Your task to perform on an android device: change the clock style Image 0: 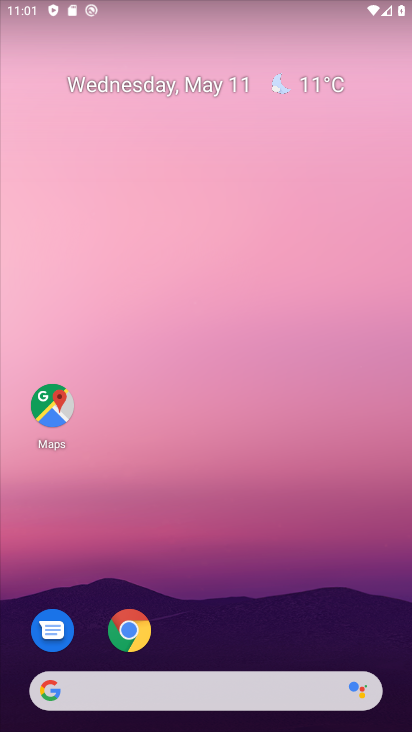
Step 0: drag from (199, 640) to (260, 239)
Your task to perform on an android device: change the clock style Image 1: 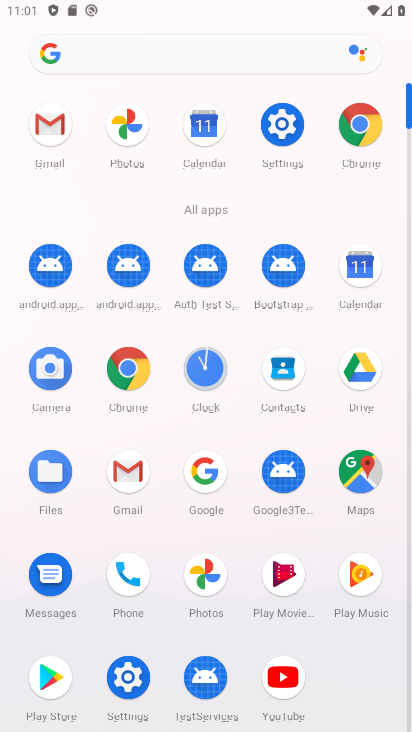
Step 1: click (208, 372)
Your task to perform on an android device: change the clock style Image 2: 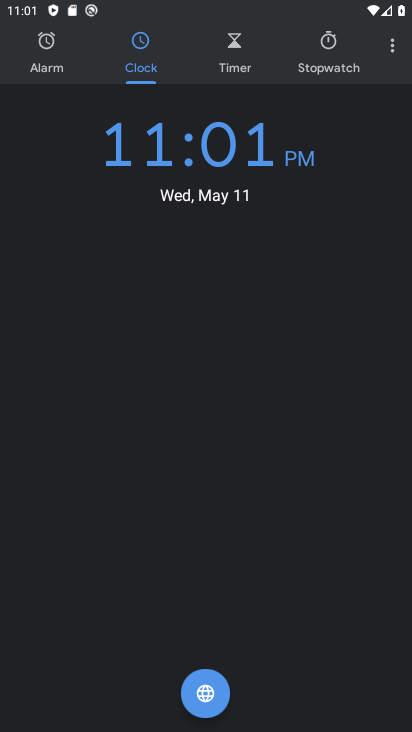
Step 2: click (396, 46)
Your task to perform on an android device: change the clock style Image 3: 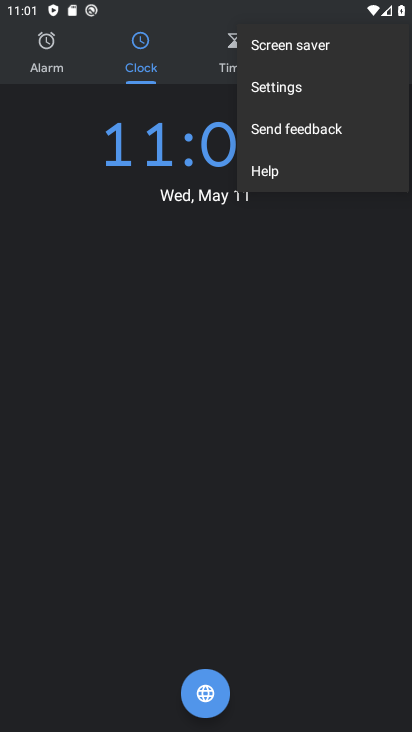
Step 3: click (293, 89)
Your task to perform on an android device: change the clock style Image 4: 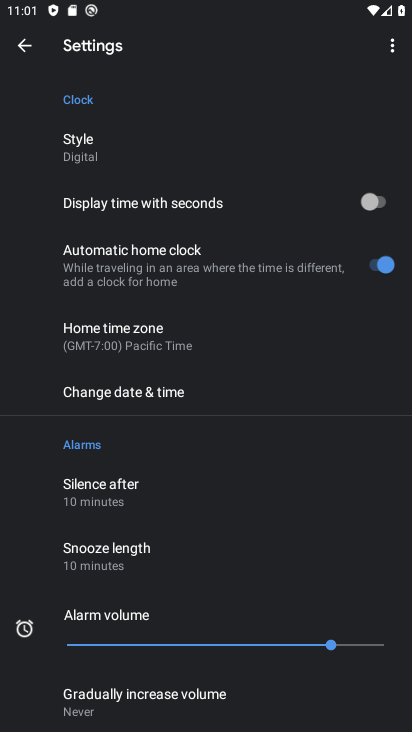
Step 4: click (104, 138)
Your task to perform on an android device: change the clock style Image 5: 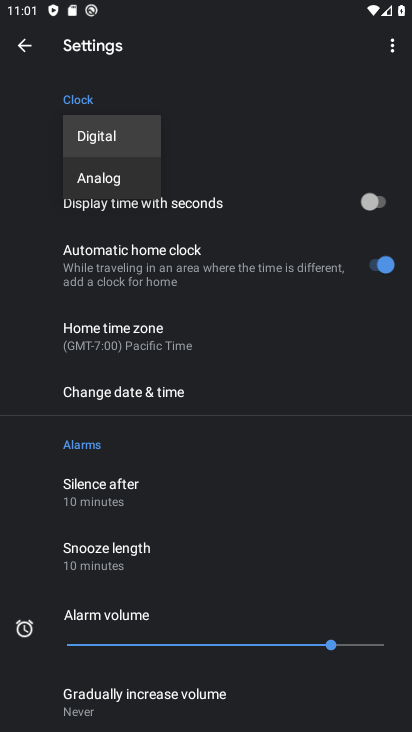
Step 5: click (309, 341)
Your task to perform on an android device: change the clock style Image 6: 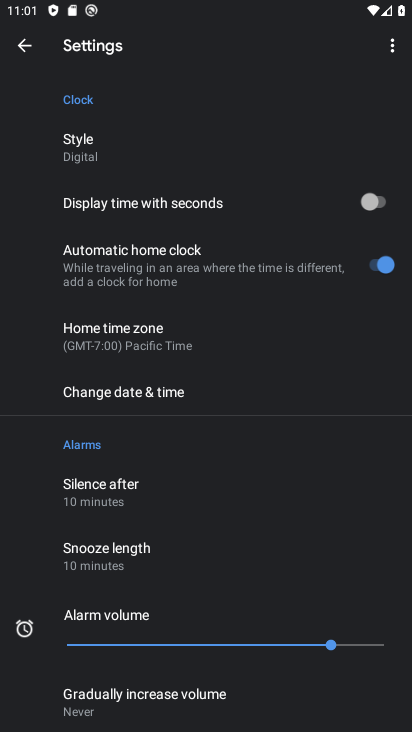
Step 6: click (72, 144)
Your task to perform on an android device: change the clock style Image 7: 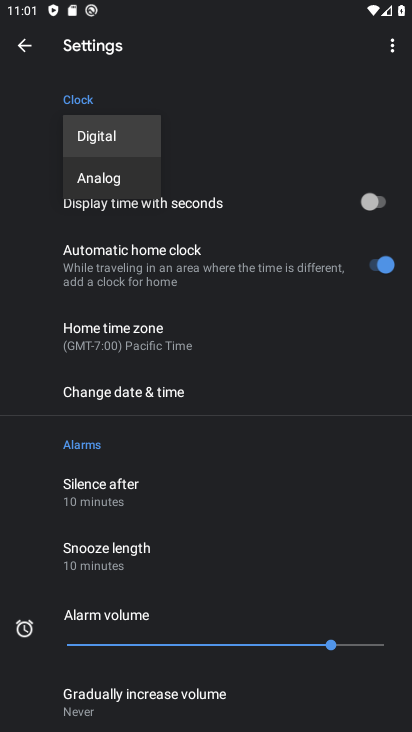
Step 7: click (147, 189)
Your task to perform on an android device: change the clock style Image 8: 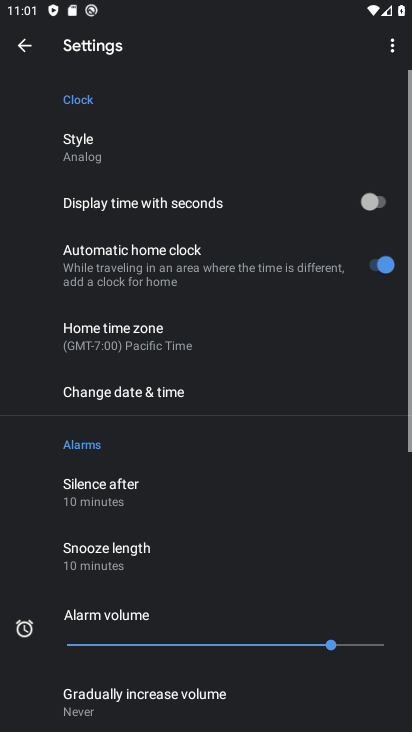
Step 8: task complete